Your task to perform on an android device: Open sound settings Image 0: 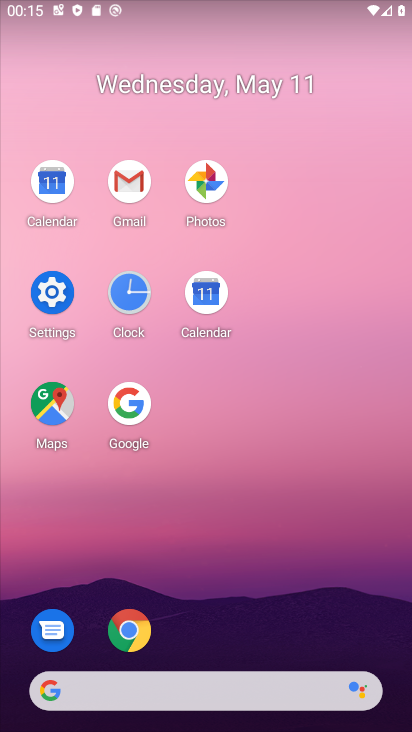
Step 0: click (52, 288)
Your task to perform on an android device: Open sound settings Image 1: 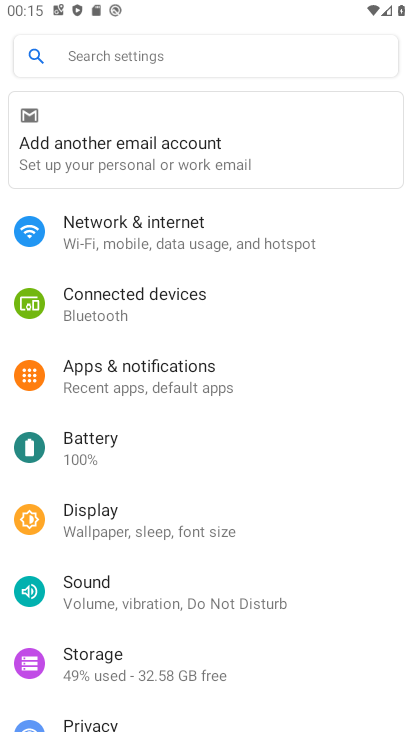
Step 1: click (255, 584)
Your task to perform on an android device: Open sound settings Image 2: 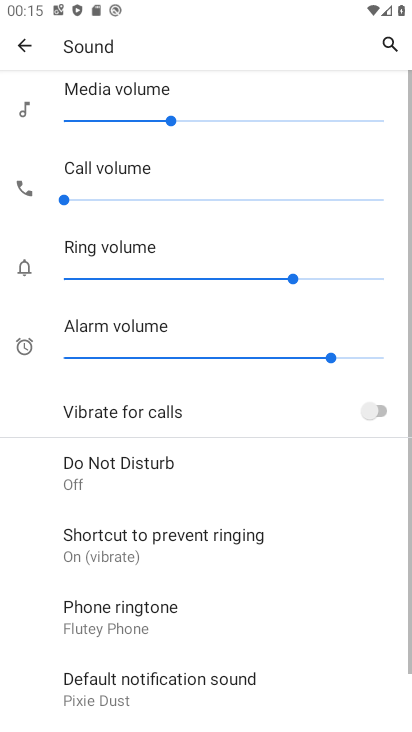
Step 2: task complete